Your task to perform on an android device: open app "Google Chat" Image 0: 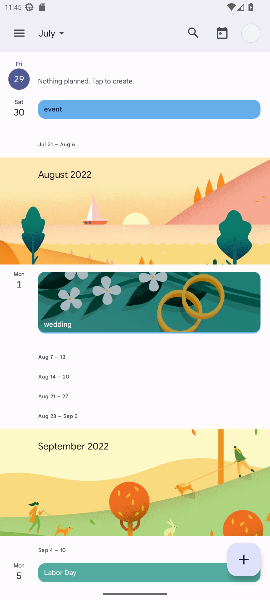
Step 0: press home button
Your task to perform on an android device: open app "Google Chat" Image 1: 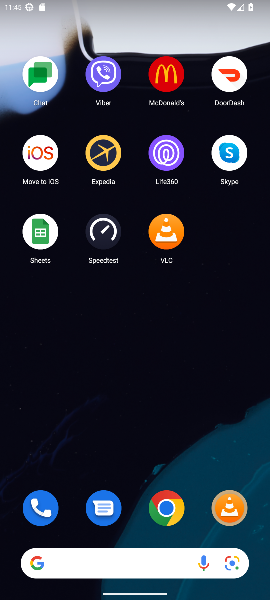
Step 1: drag from (164, 554) to (158, 46)
Your task to perform on an android device: open app "Google Chat" Image 2: 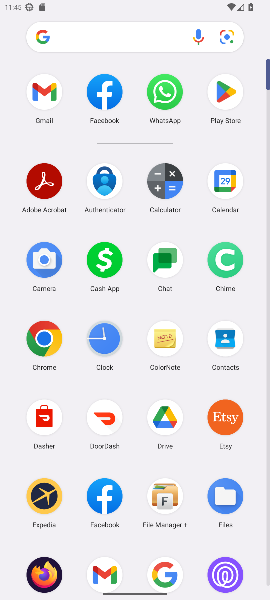
Step 2: click (230, 79)
Your task to perform on an android device: open app "Google Chat" Image 3: 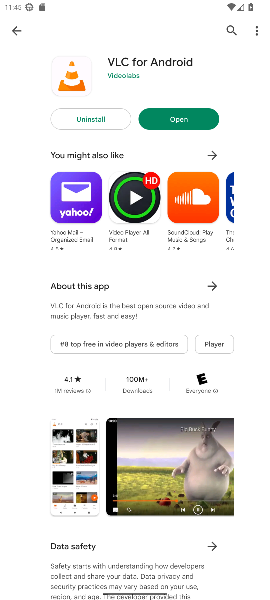
Step 3: click (234, 30)
Your task to perform on an android device: open app "Google Chat" Image 4: 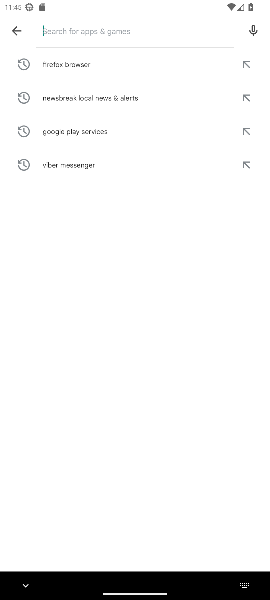
Step 4: type "google chat"
Your task to perform on an android device: open app "Google Chat" Image 5: 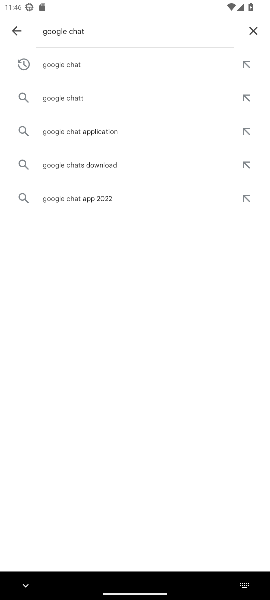
Step 5: click (73, 60)
Your task to perform on an android device: open app "Google Chat" Image 6: 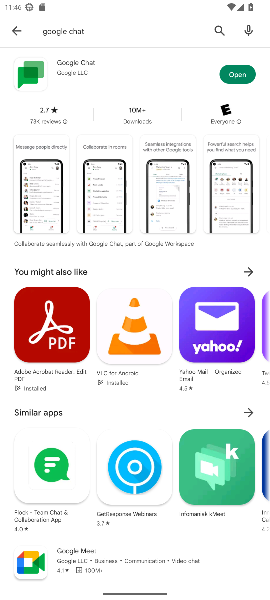
Step 6: click (238, 78)
Your task to perform on an android device: open app "Google Chat" Image 7: 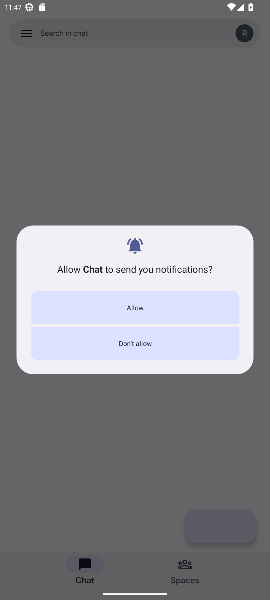
Step 7: task complete